Your task to perform on an android device: change notification settings in the gmail app Image 0: 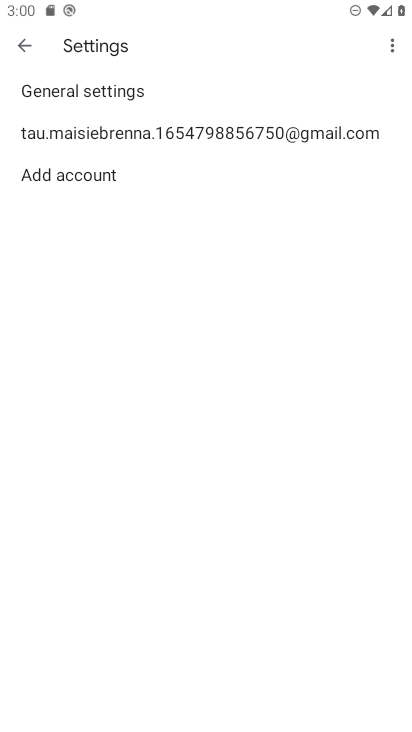
Step 0: click (160, 129)
Your task to perform on an android device: change notification settings in the gmail app Image 1: 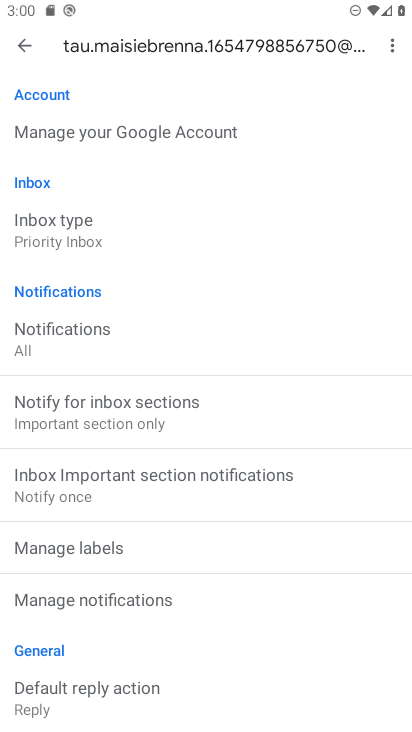
Step 1: click (94, 600)
Your task to perform on an android device: change notification settings in the gmail app Image 2: 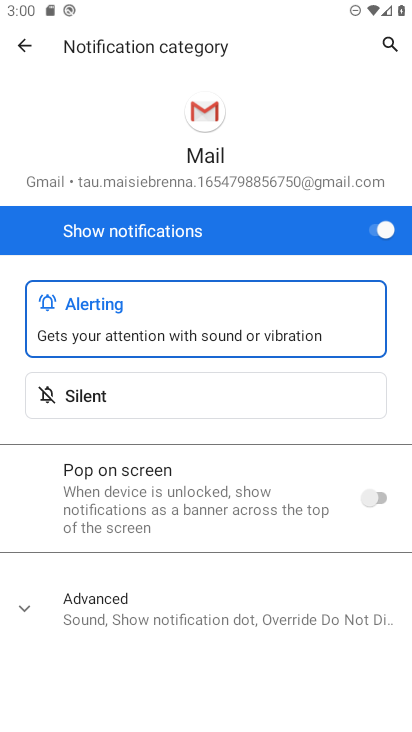
Step 2: click (394, 228)
Your task to perform on an android device: change notification settings in the gmail app Image 3: 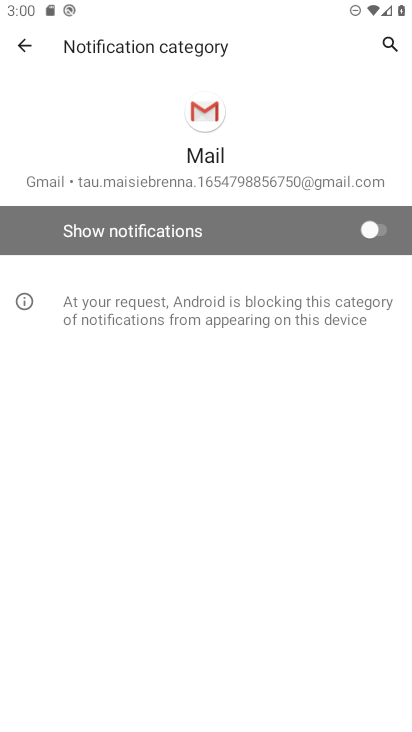
Step 3: task complete